Your task to perform on an android device: Go to privacy settings Image 0: 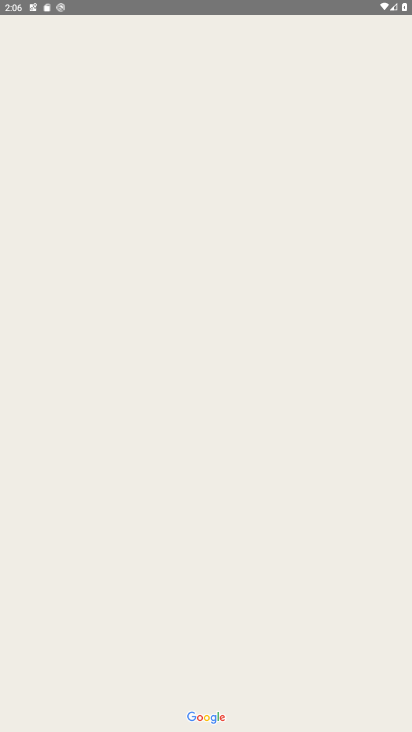
Step 0: click (211, 214)
Your task to perform on an android device: Go to privacy settings Image 1: 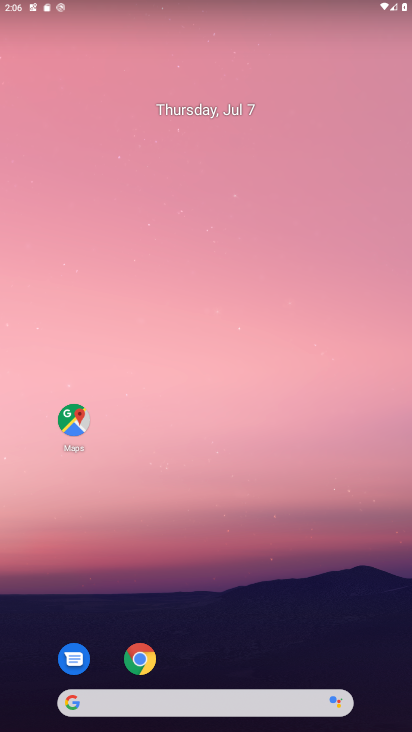
Step 1: drag from (202, 657) to (285, 154)
Your task to perform on an android device: Go to privacy settings Image 2: 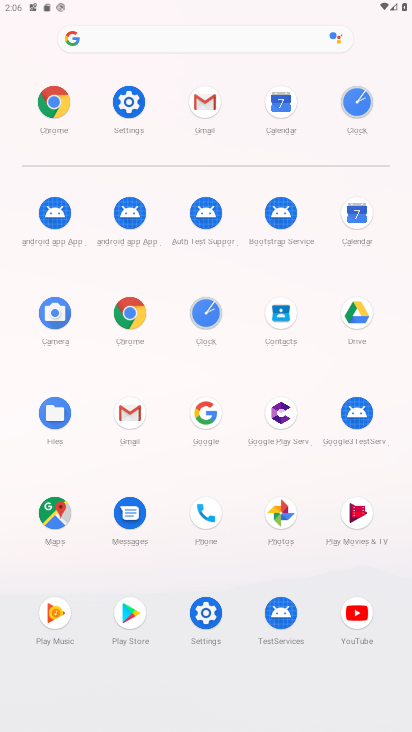
Step 2: click (128, 97)
Your task to perform on an android device: Go to privacy settings Image 3: 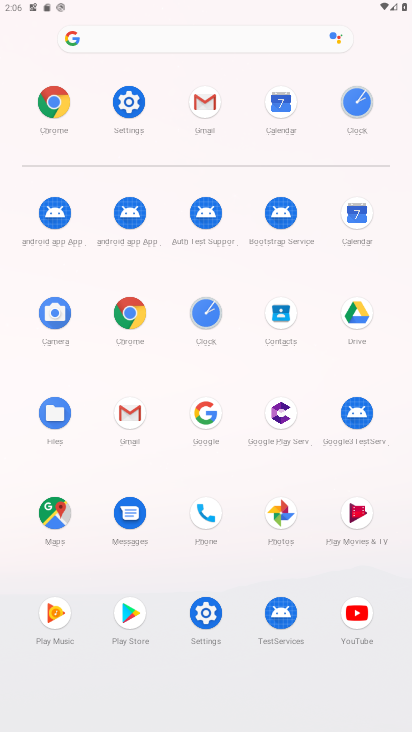
Step 3: click (128, 97)
Your task to perform on an android device: Go to privacy settings Image 4: 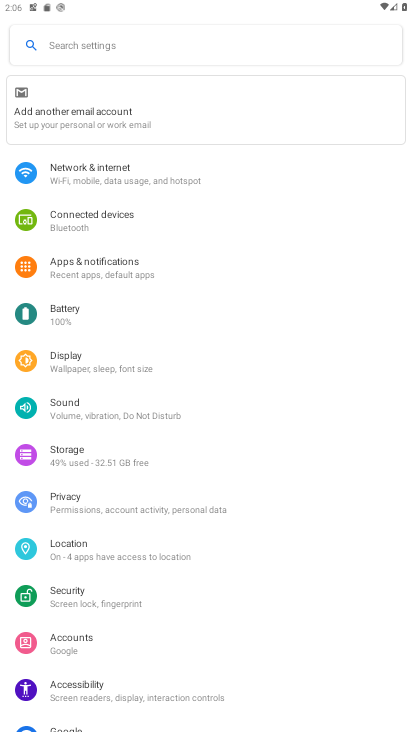
Step 4: click (112, 500)
Your task to perform on an android device: Go to privacy settings Image 5: 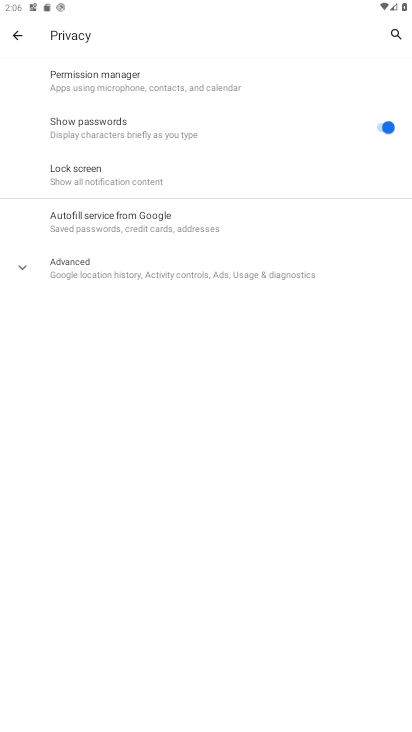
Step 5: click (229, 401)
Your task to perform on an android device: Go to privacy settings Image 6: 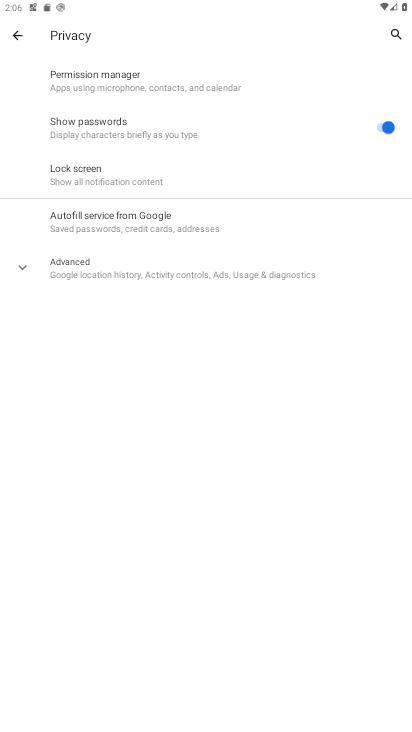
Step 6: task complete